Your task to perform on an android device: Open Wikipedia Image 0: 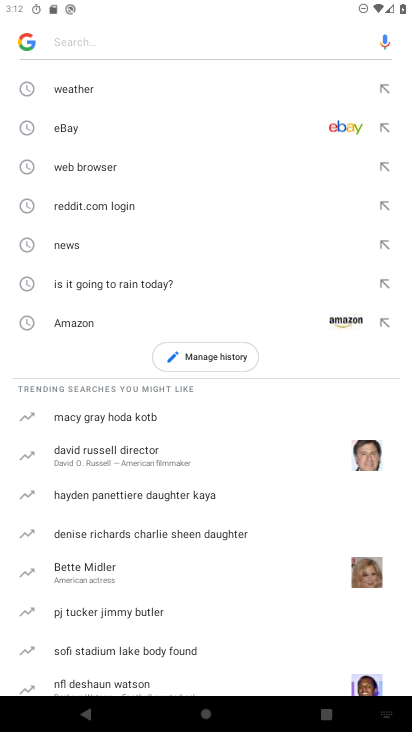
Step 0: press home button
Your task to perform on an android device: Open Wikipedia Image 1: 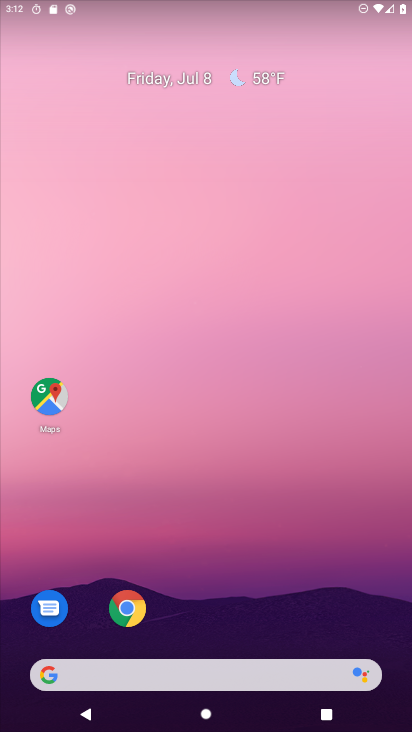
Step 1: drag from (254, 723) to (262, 50)
Your task to perform on an android device: Open Wikipedia Image 2: 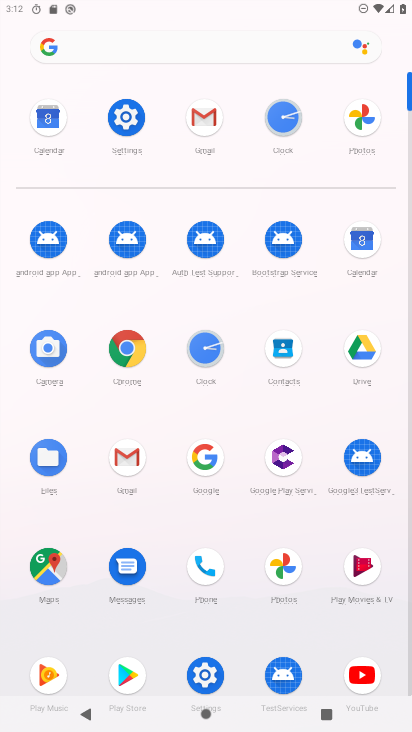
Step 2: click (128, 350)
Your task to perform on an android device: Open Wikipedia Image 3: 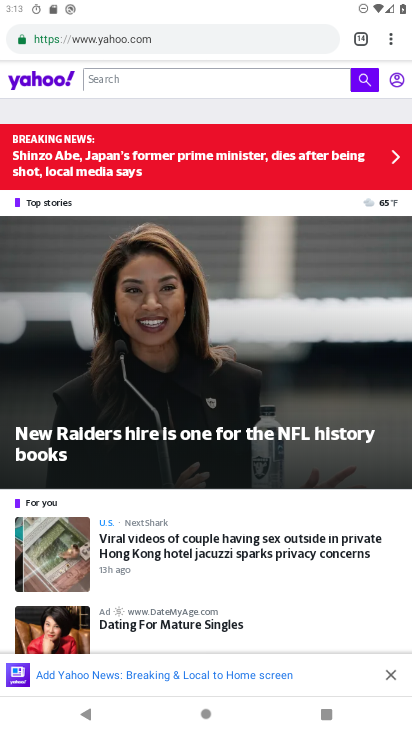
Step 3: click (390, 43)
Your task to perform on an android device: Open Wikipedia Image 4: 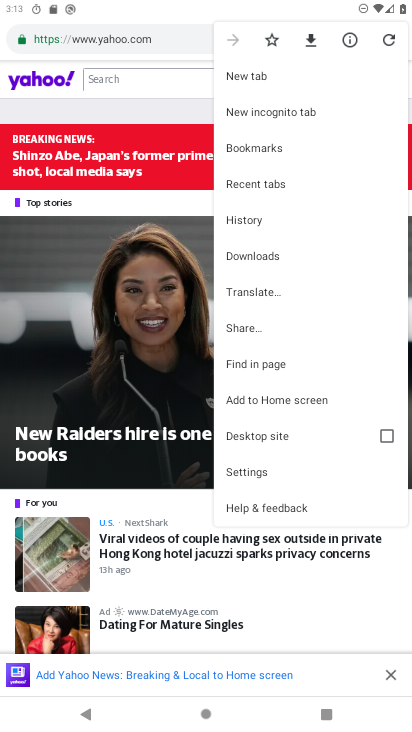
Step 4: click (246, 77)
Your task to perform on an android device: Open Wikipedia Image 5: 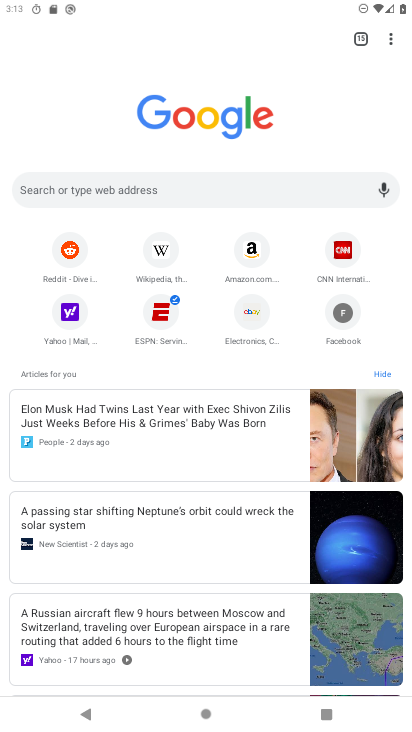
Step 5: click (164, 243)
Your task to perform on an android device: Open Wikipedia Image 6: 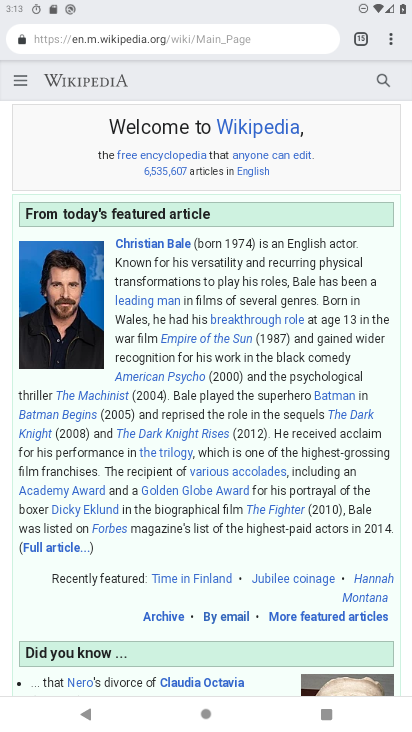
Step 6: task complete